Your task to perform on an android device: turn off notifications settings in the gmail app Image 0: 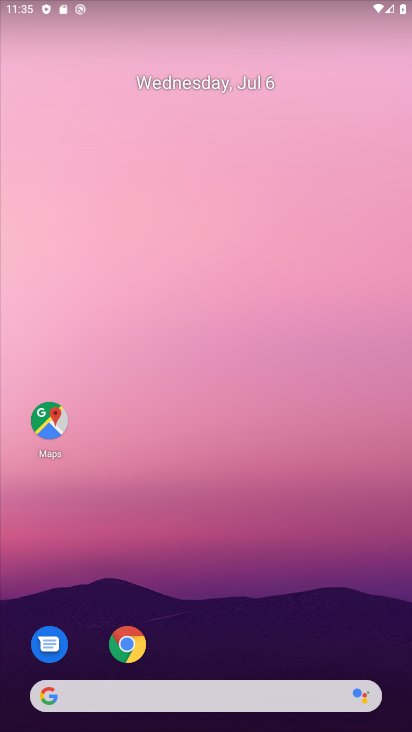
Step 0: drag from (240, 693) to (202, 152)
Your task to perform on an android device: turn off notifications settings in the gmail app Image 1: 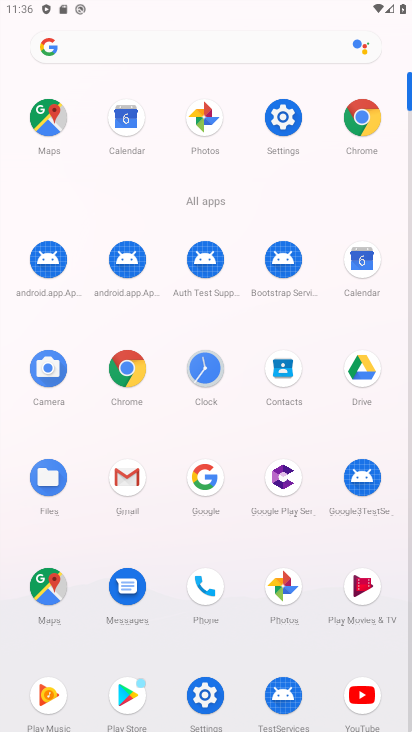
Step 1: click (127, 479)
Your task to perform on an android device: turn off notifications settings in the gmail app Image 2: 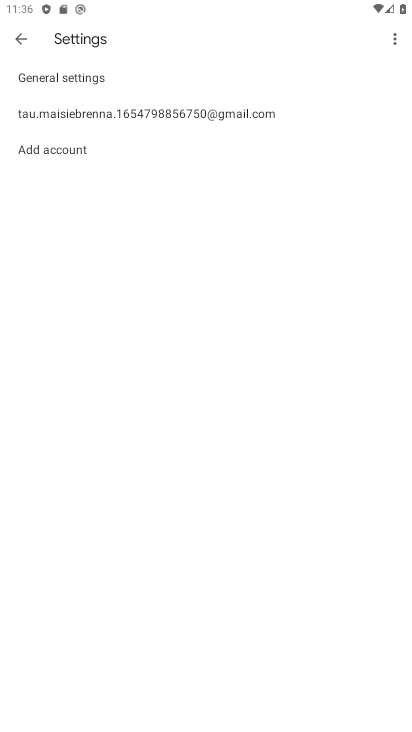
Step 2: click (78, 119)
Your task to perform on an android device: turn off notifications settings in the gmail app Image 3: 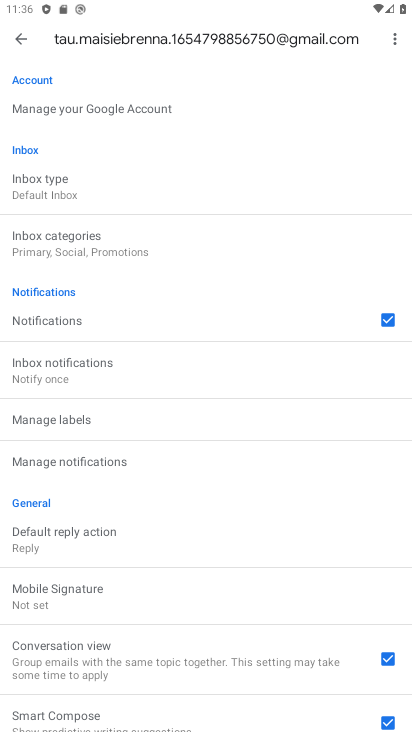
Step 3: click (387, 319)
Your task to perform on an android device: turn off notifications settings in the gmail app Image 4: 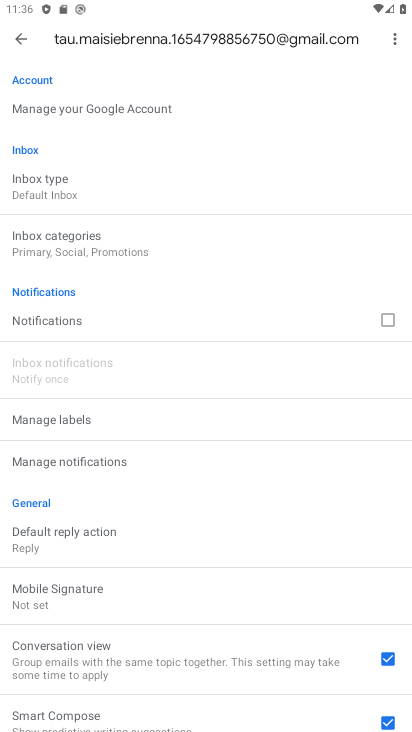
Step 4: task complete